Your task to perform on an android device: turn off improve location accuracy Image 0: 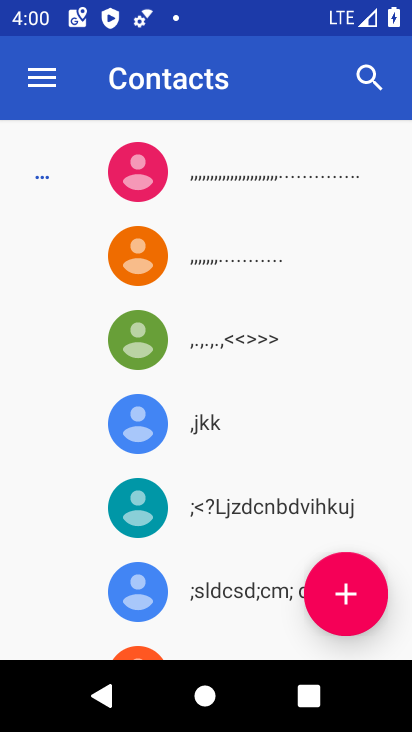
Step 0: press home button
Your task to perform on an android device: turn off improve location accuracy Image 1: 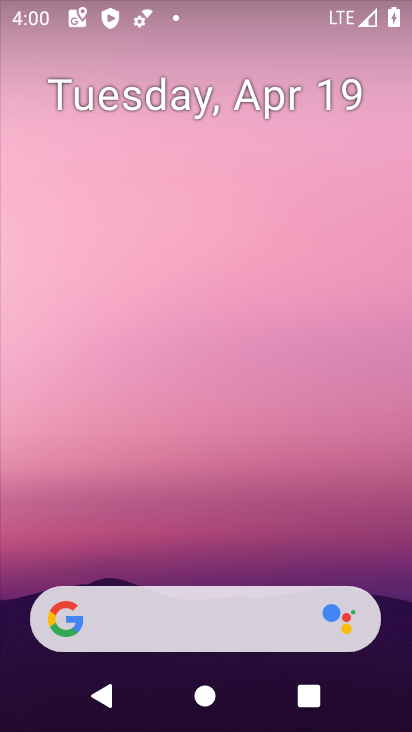
Step 1: drag from (257, 553) to (322, 77)
Your task to perform on an android device: turn off improve location accuracy Image 2: 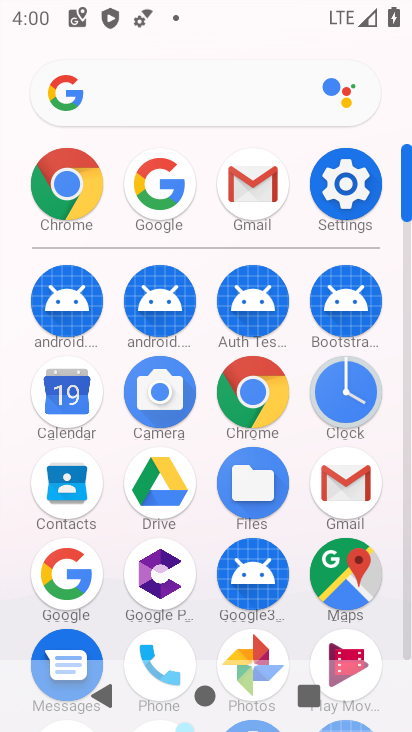
Step 2: click (347, 185)
Your task to perform on an android device: turn off improve location accuracy Image 3: 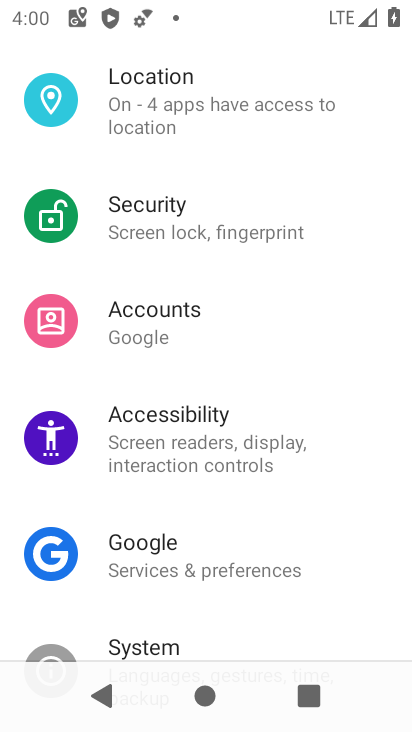
Step 3: click (187, 112)
Your task to perform on an android device: turn off improve location accuracy Image 4: 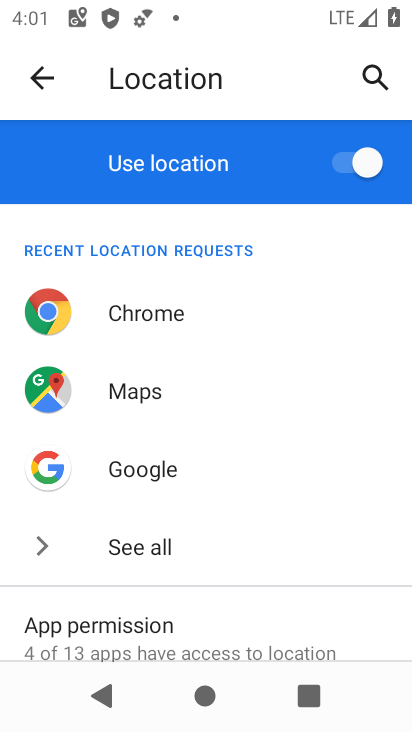
Step 4: drag from (213, 559) to (253, 373)
Your task to perform on an android device: turn off improve location accuracy Image 5: 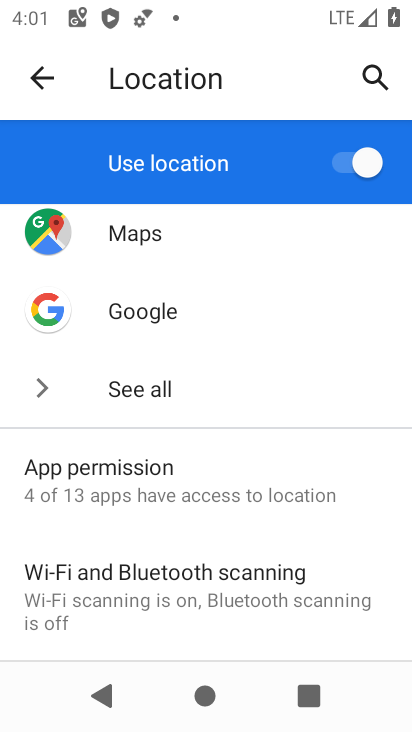
Step 5: drag from (214, 544) to (264, 422)
Your task to perform on an android device: turn off improve location accuracy Image 6: 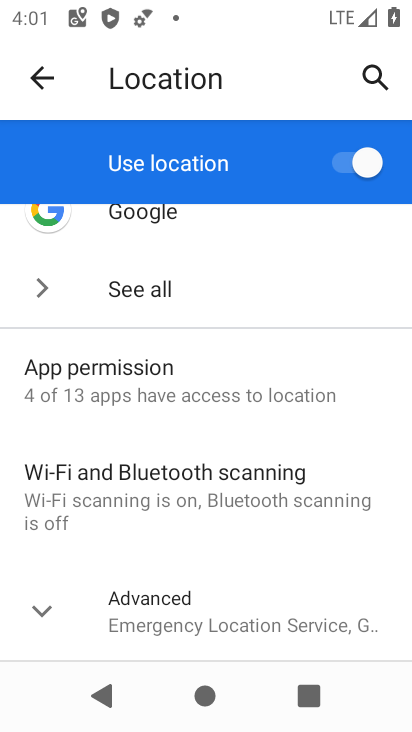
Step 6: drag from (223, 568) to (270, 412)
Your task to perform on an android device: turn off improve location accuracy Image 7: 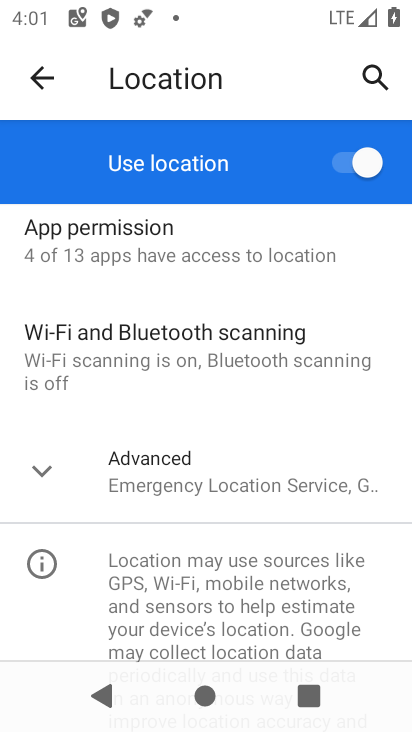
Step 7: click (238, 495)
Your task to perform on an android device: turn off improve location accuracy Image 8: 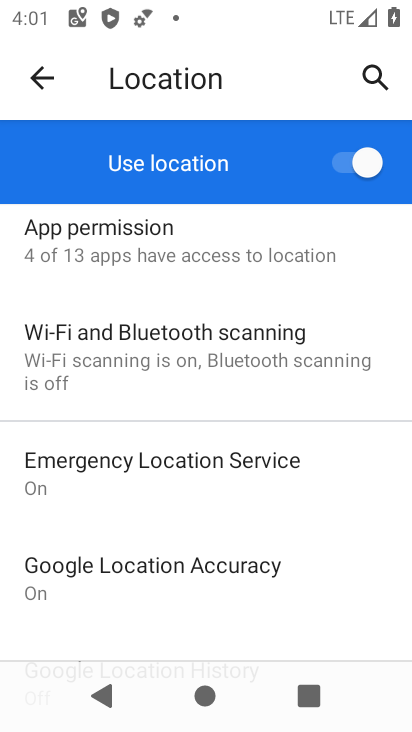
Step 8: drag from (226, 512) to (269, 422)
Your task to perform on an android device: turn off improve location accuracy Image 9: 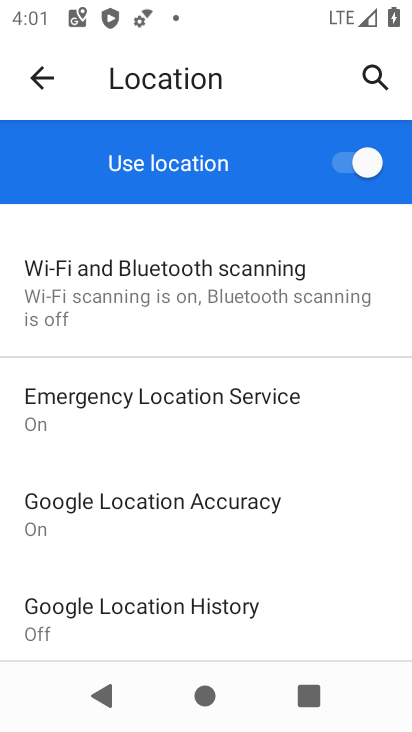
Step 9: click (255, 505)
Your task to perform on an android device: turn off improve location accuracy Image 10: 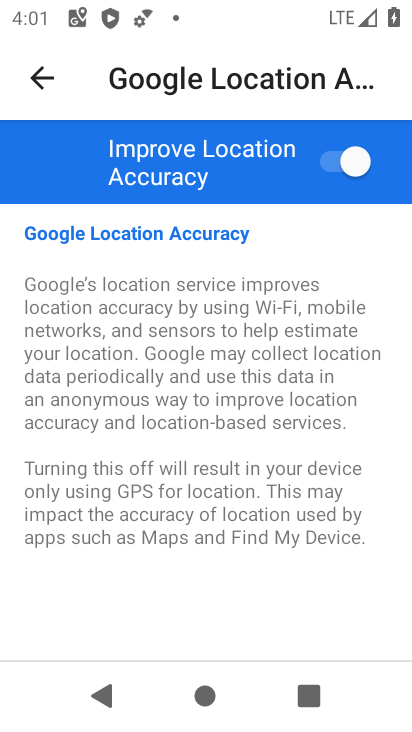
Step 10: click (355, 163)
Your task to perform on an android device: turn off improve location accuracy Image 11: 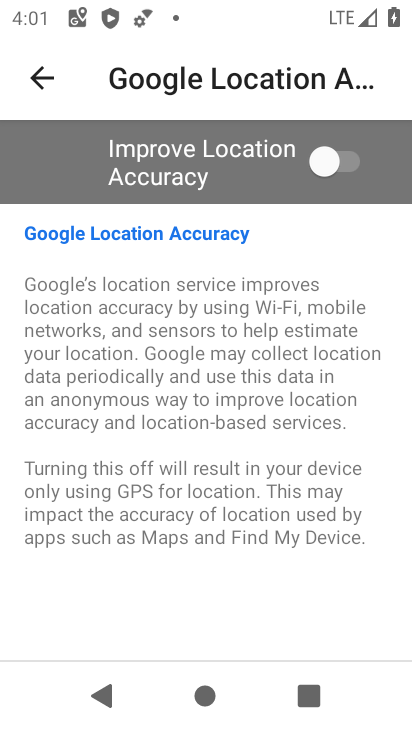
Step 11: task complete